Your task to perform on an android device: What is the news today? Image 0: 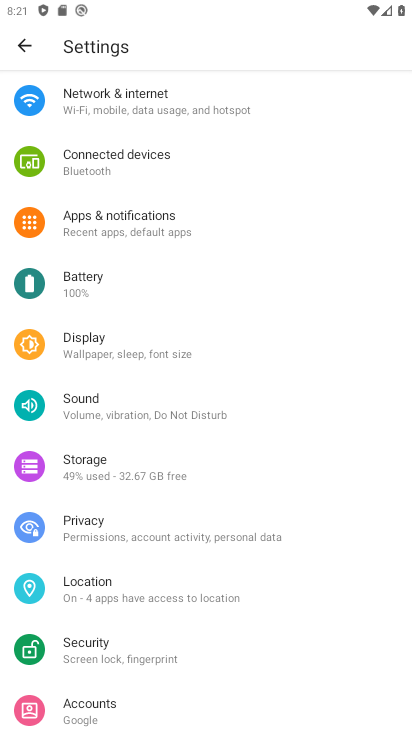
Step 0: press home button
Your task to perform on an android device: What is the news today? Image 1: 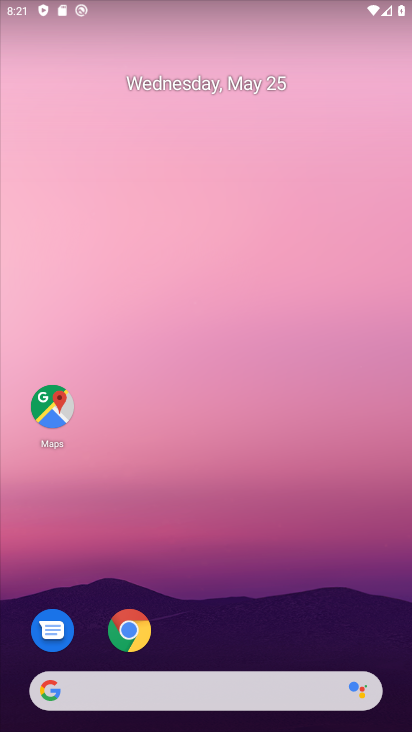
Step 1: task complete